Your task to perform on an android device: What is the news today? Image 0: 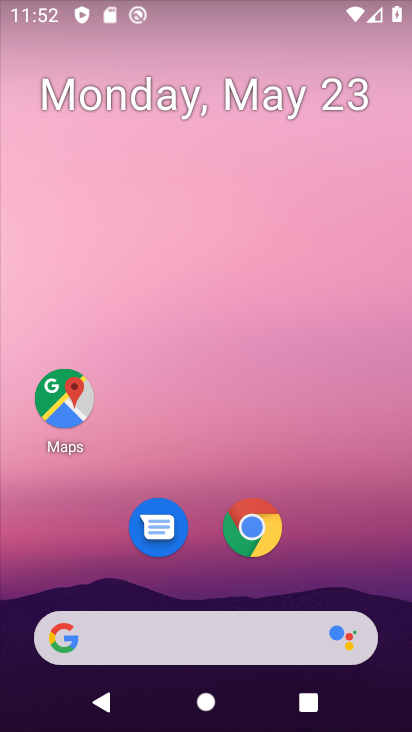
Step 0: press home button
Your task to perform on an android device: What is the news today? Image 1: 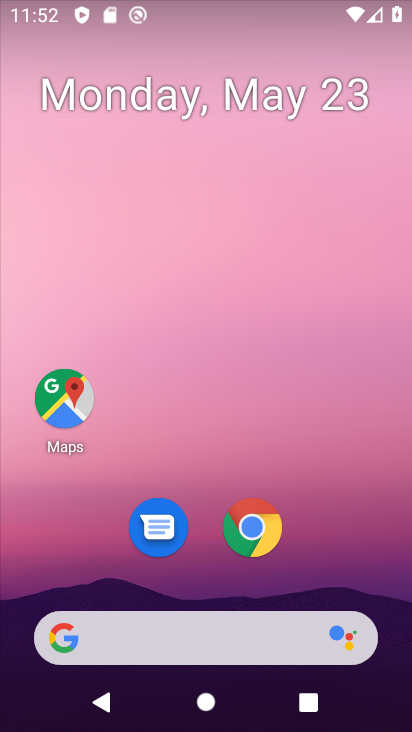
Step 1: click (73, 641)
Your task to perform on an android device: What is the news today? Image 2: 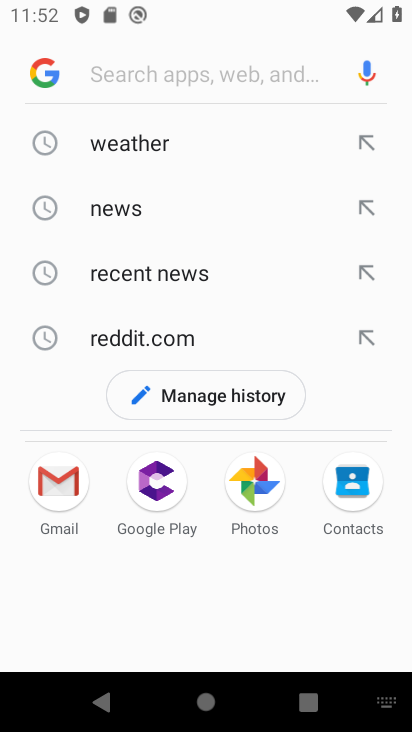
Step 2: click (131, 209)
Your task to perform on an android device: What is the news today? Image 3: 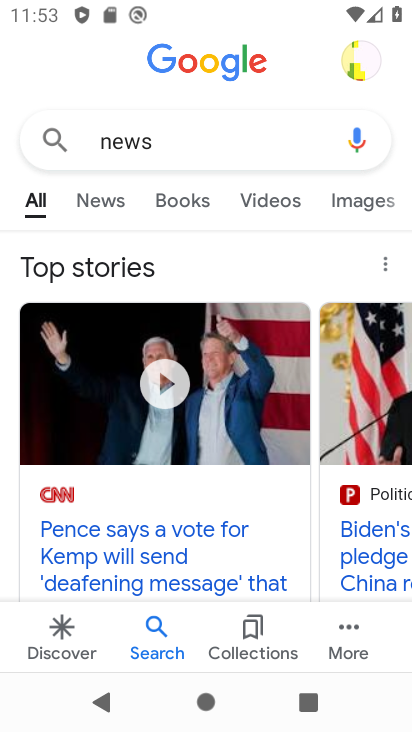
Step 3: click (120, 197)
Your task to perform on an android device: What is the news today? Image 4: 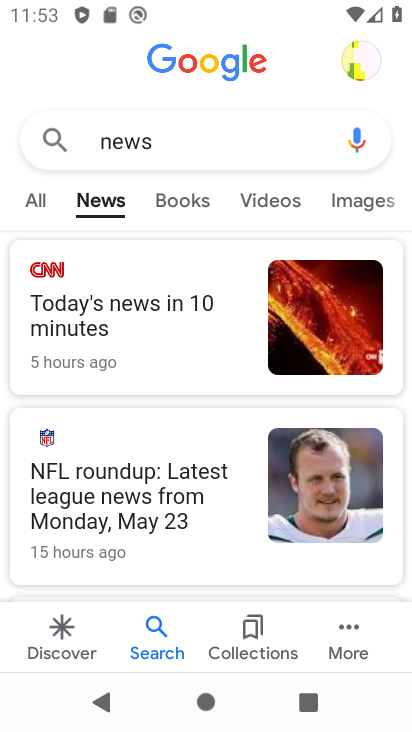
Step 4: task complete